Your task to perform on an android device: Do I have any events today? Image 0: 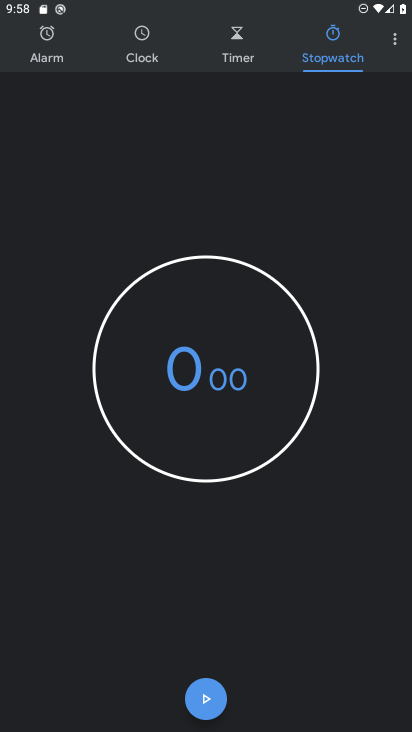
Step 0: press home button
Your task to perform on an android device: Do I have any events today? Image 1: 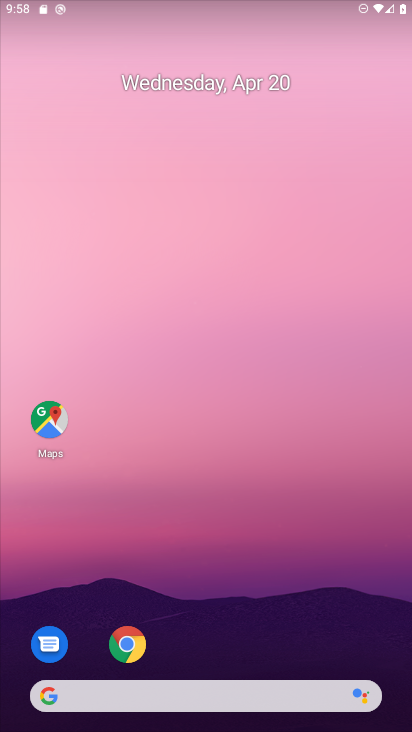
Step 1: drag from (346, 626) to (205, 67)
Your task to perform on an android device: Do I have any events today? Image 2: 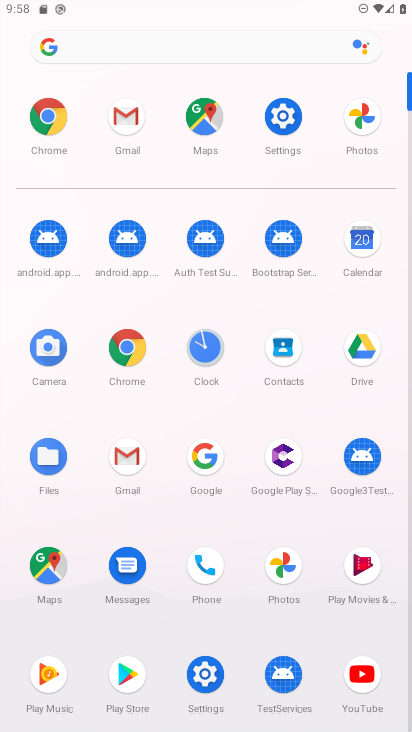
Step 2: click (354, 249)
Your task to perform on an android device: Do I have any events today? Image 3: 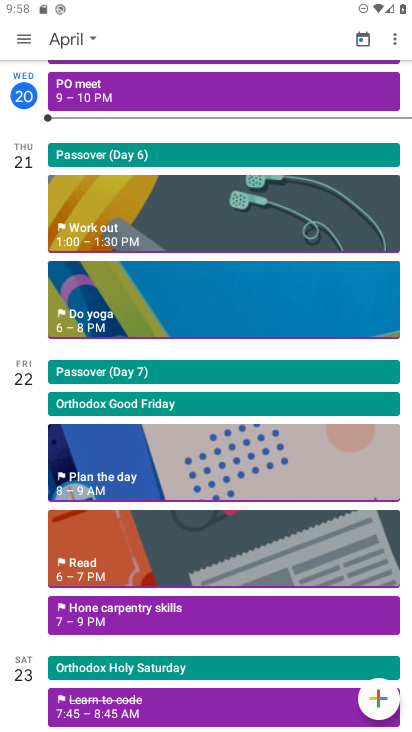
Step 3: click (68, 36)
Your task to perform on an android device: Do I have any events today? Image 4: 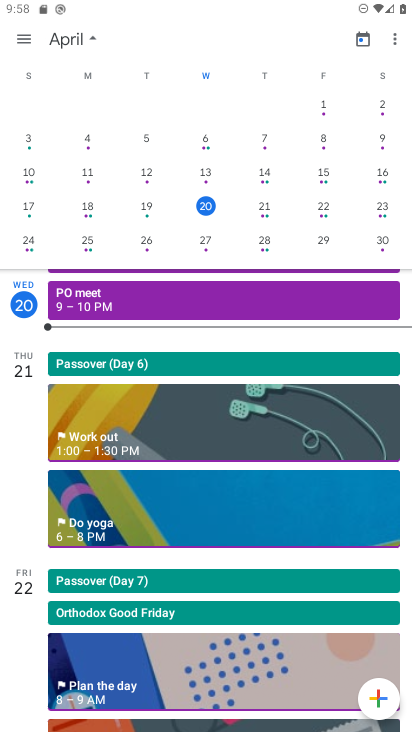
Step 4: click (265, 214)
Your task to perform on an android device: Do I have any events today? Image 5: 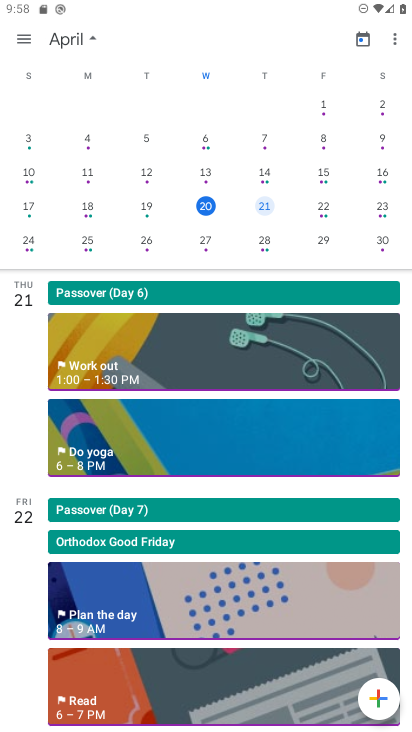
Step 5: click (123, 330)
Your task to perform on an android device: Do I have any events today? Image 6: 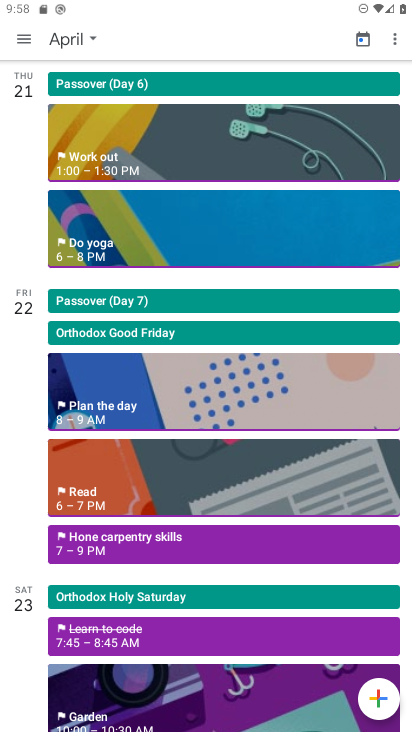
Step 6: click (159, 87)
Your task to perform on an android device: Do I have any events today? Image 7: 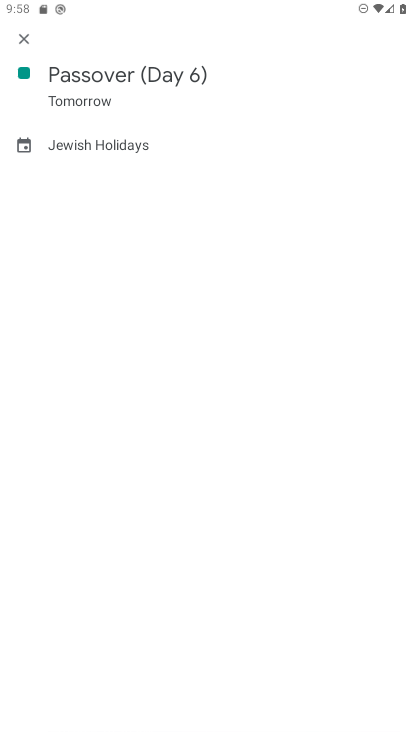
Step 7: task complete